Your task to perform on an android device: empty trash in the gmail app Image 0: 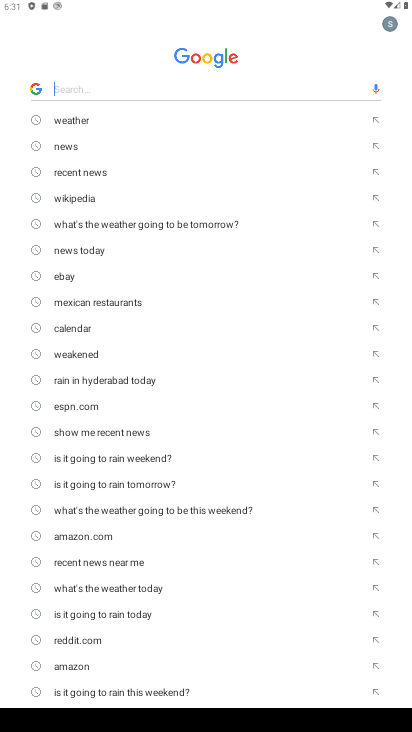
Step 0: press home button
Your task to perform on an android device: empty trash in the gmail app Image 1: 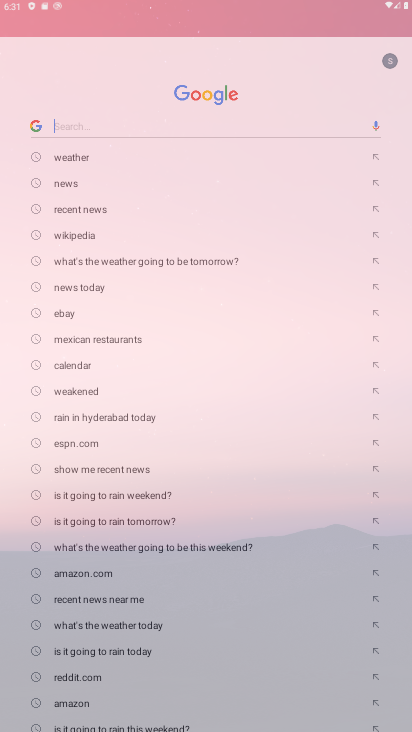
Step 1: drag from (351, 556) to (259, 13)
Your task to perform on an android device: empty trash in the gmail app Image 2: 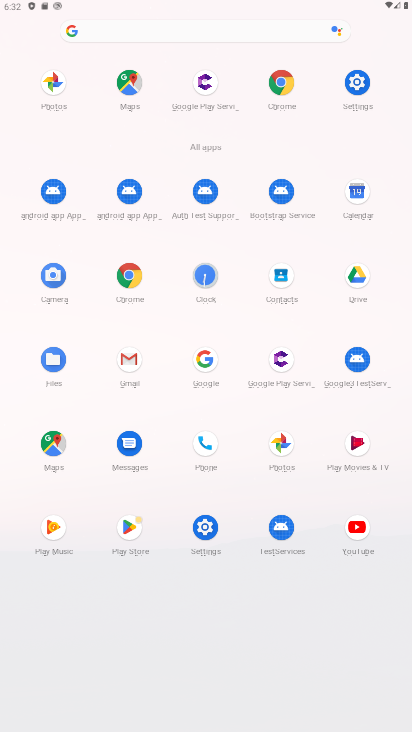
Step 2: click (116, 359)
Your task to perform on an android device: empty trash in the gmail app Image 3: 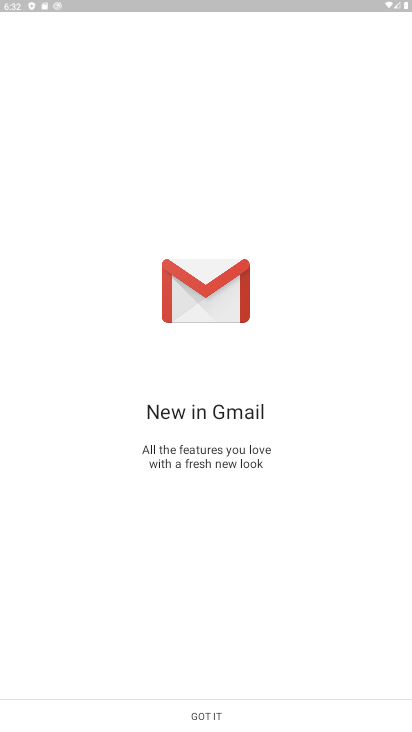
Step 3: click (220, 715)
Your task to perform on an android device: empty trash in the gmail app Image 4: 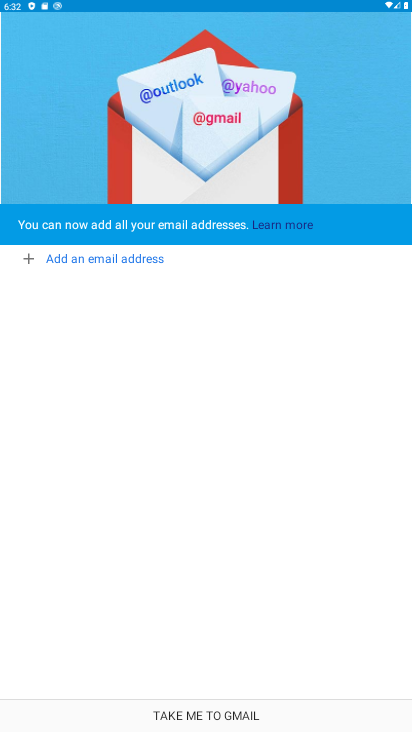
Step 4: click (220, 715)
Your task to perform on an android device: empty trash in the gmail app Image 5: 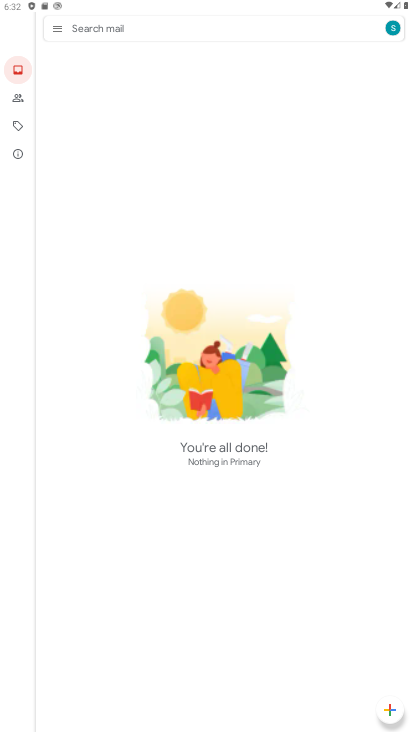
Step 5: click (57, 27)
Your task to perform on an android device: empty trash in the gmail app Image 6: 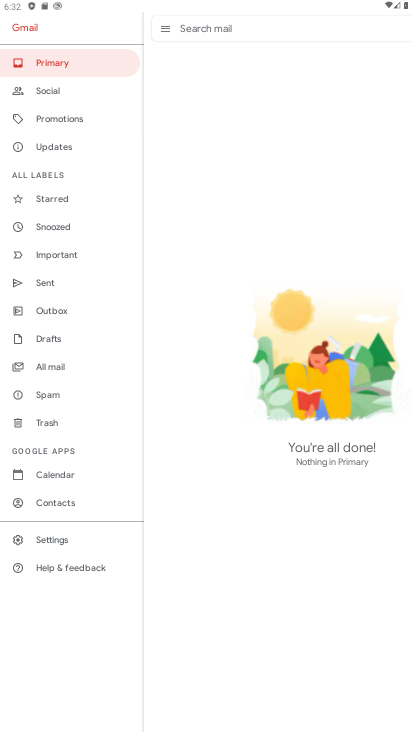
Step 6: click (54, 422)
Your task to perform on an android device: empty trash in the gmail app Image 7: 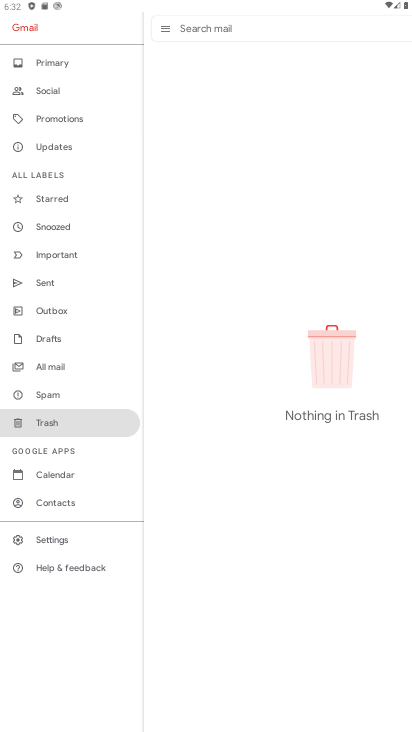
Step 7: task complete